Your task to perform on an android device: turn off notifications in google photos Image 0: 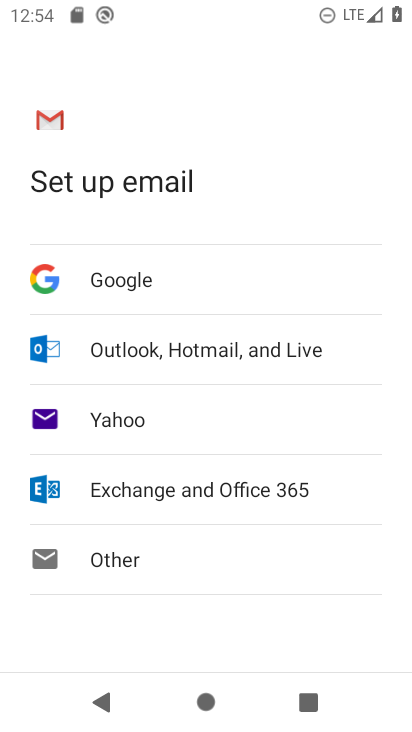
Step 0: press back button
Your task to perform on an android device: turn off notifications in google photos Image 1: 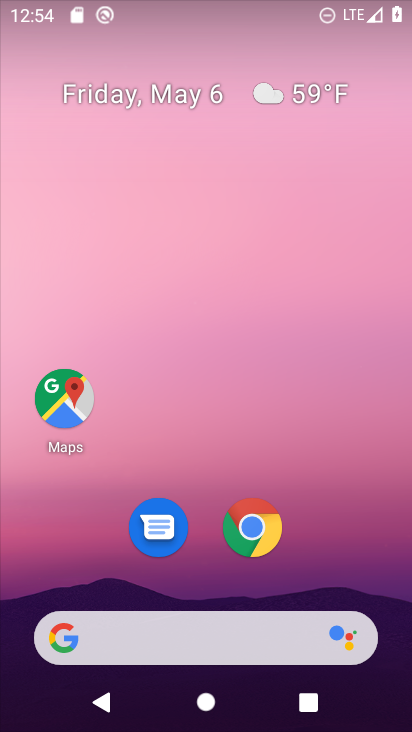
Step 1: drag from (326, 551) to (233, 29)
Your task to perform on an android device: turn off notifications in google photos Image 2: 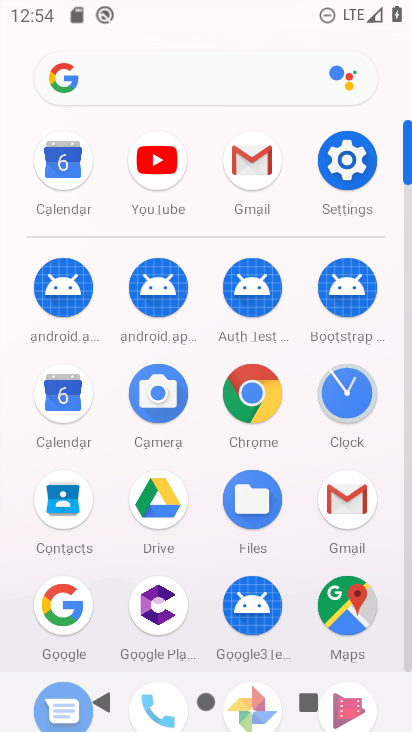
Step 2: drag from (207, 495) to (162, 224)
Your task to perform on an android device: turn off notifications in google photos Image 3: 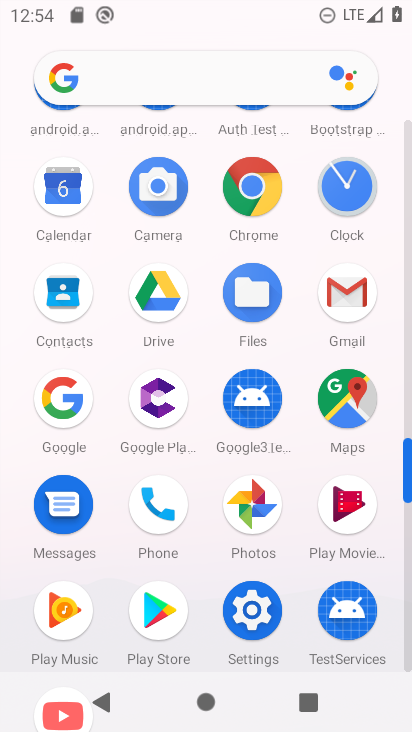
Step 3: click (254, 508)
Your task to perform on an android device: turn off notifications in google photos Image 4: 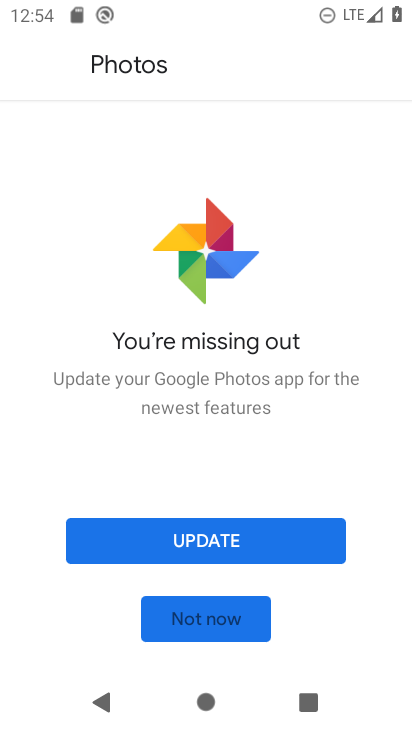
Step 4: click (223, 543)
Your task to perform on an android device: turn off notifications in google photos Image 5: 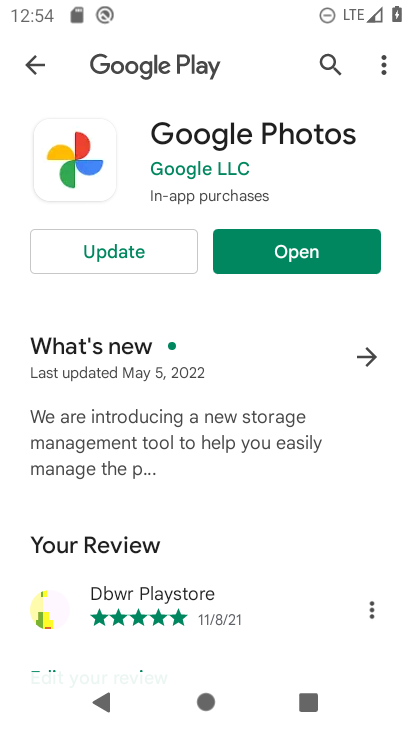
Step 5: click (159, 256)
Your task to perform on an android device: turn off notifications in google photos Image 6: 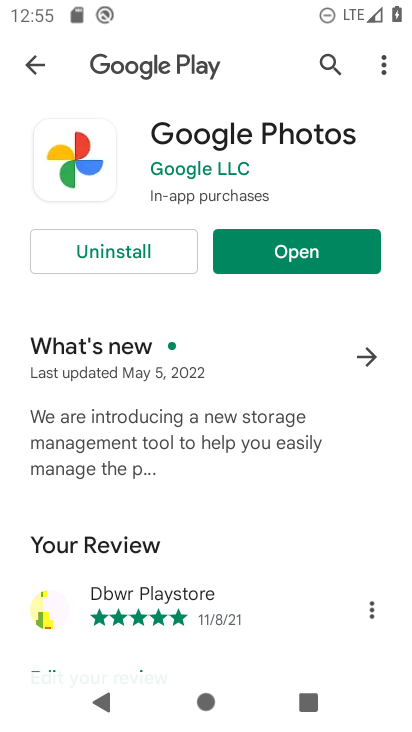
Step 6: click (282, 241)
Your task to perform on an android device: turn off notifications in google photos Image 7: 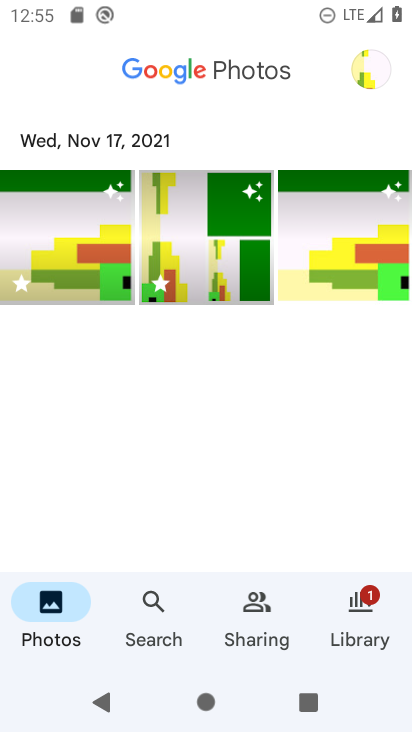
Step 7: click (371, 65)
Your task to perform on an android device: turn off notifications in google photos Image 8: 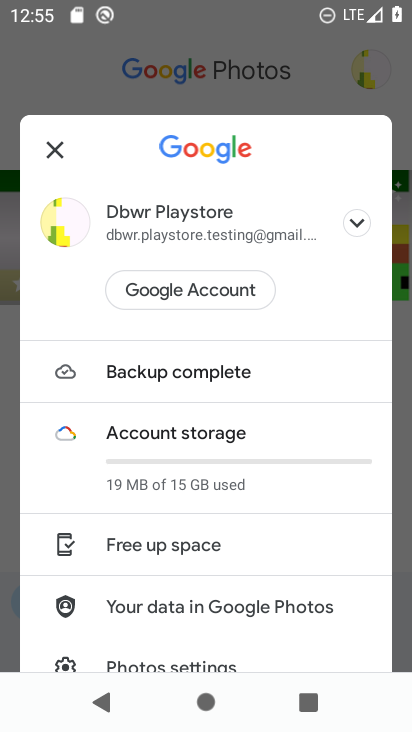
Step 8: drag from (184, 484) to (238, 350)
Your task to perform on an android device: turn off notifications in google photos Image 9: 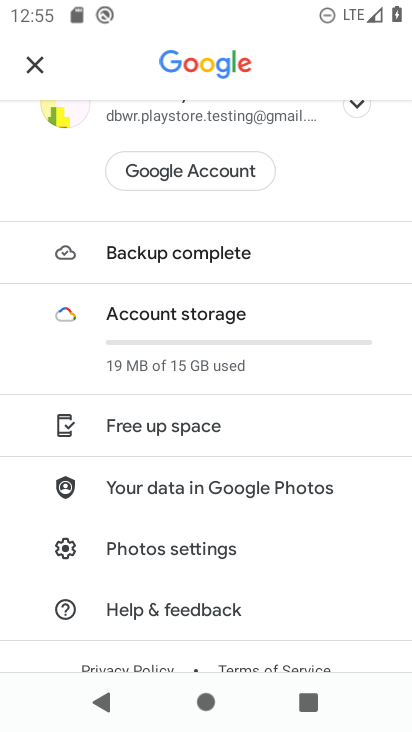
Step 9: click (168, 552)
Your task to perform on an android device: turn off notifications in google photos Image 10: 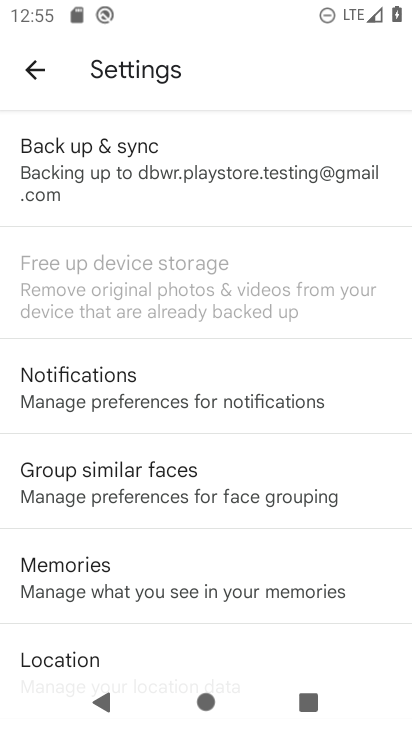
Step 10: click (123, 385)
Your task to perform on an android device: turn off notifications in google photos Image 11: 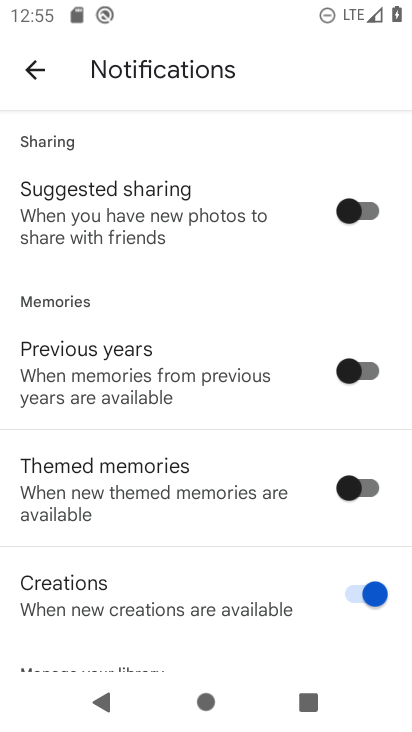
Step 11: drag from (164, 520) to (217, 361)
Your task to perform on an android device: turn off notifications in google photos Image 12: 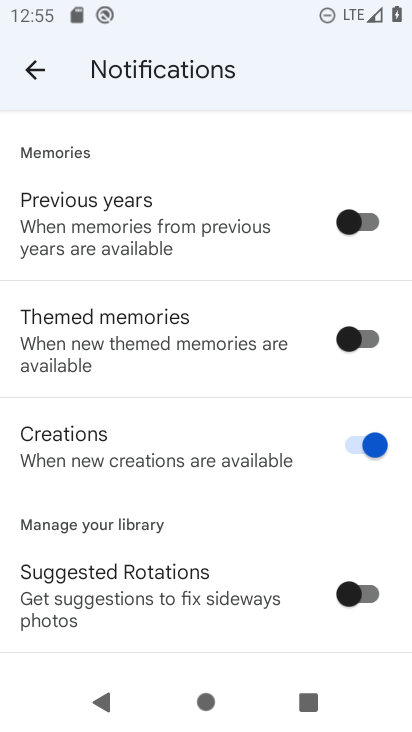
Step 12: drag from (168, 503) to (229, 351)
Your task to perform on an android device: turn off notifications in google photos Image 13: 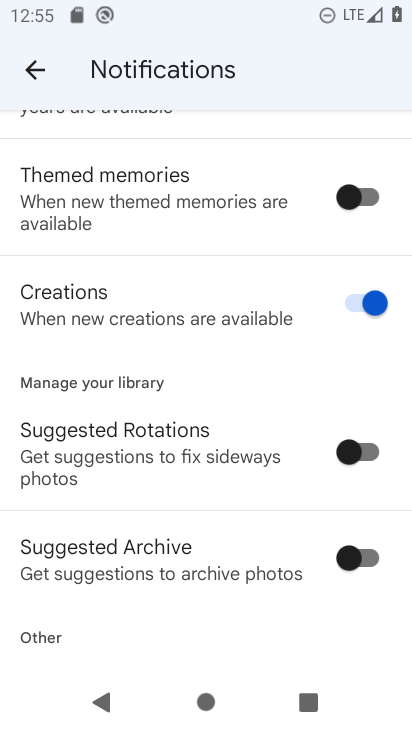
Step 13: drag from (155, 503) to (222, 348)
Your task to perform on an android device: turn off notifications in google photos Image 14: 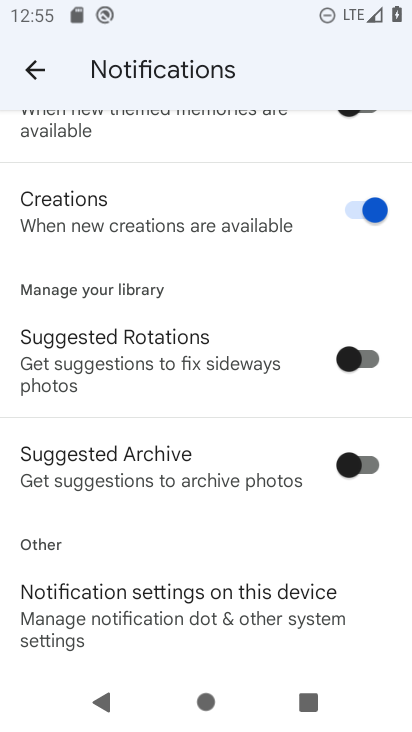
Step 14: click (130, 592)
Your task to perform on an android device: turn off notifications in google photos Image 15: 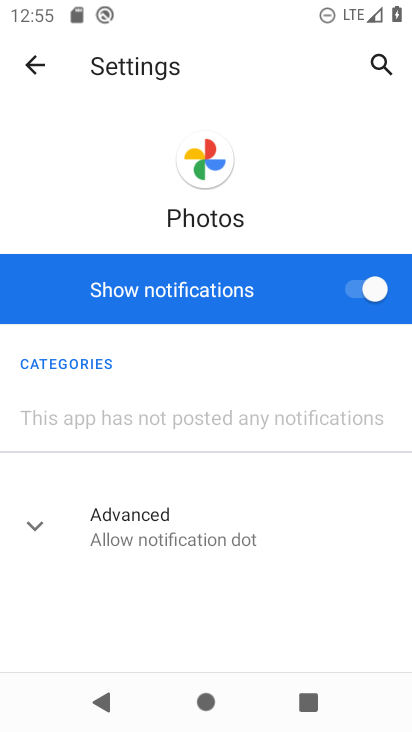
Step 15: click (364, 293)
Your task to perform on an android device: turn off notifications in google photos Image 16: 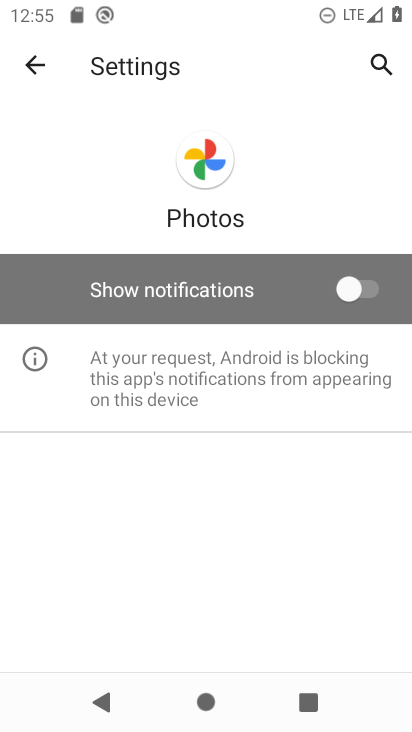
Step 16: task complete